Your task to perform on an android device: open app "Google Sheets" (install if not already installed) Image 0: 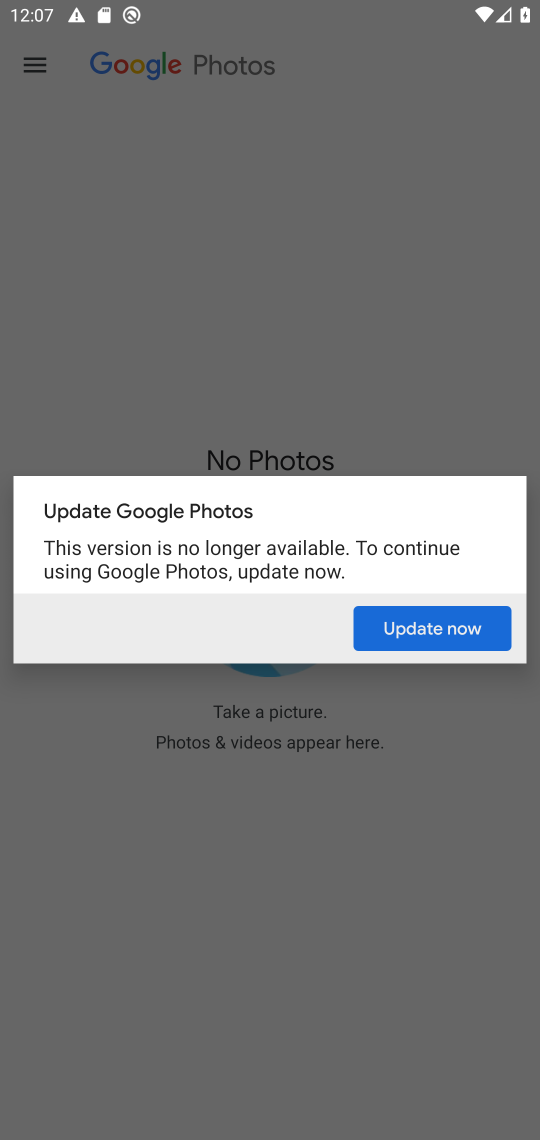
Step 0: press home button
Your task to perform on an android device: open app "Google Sheets" (install if not already installed) Image 1: 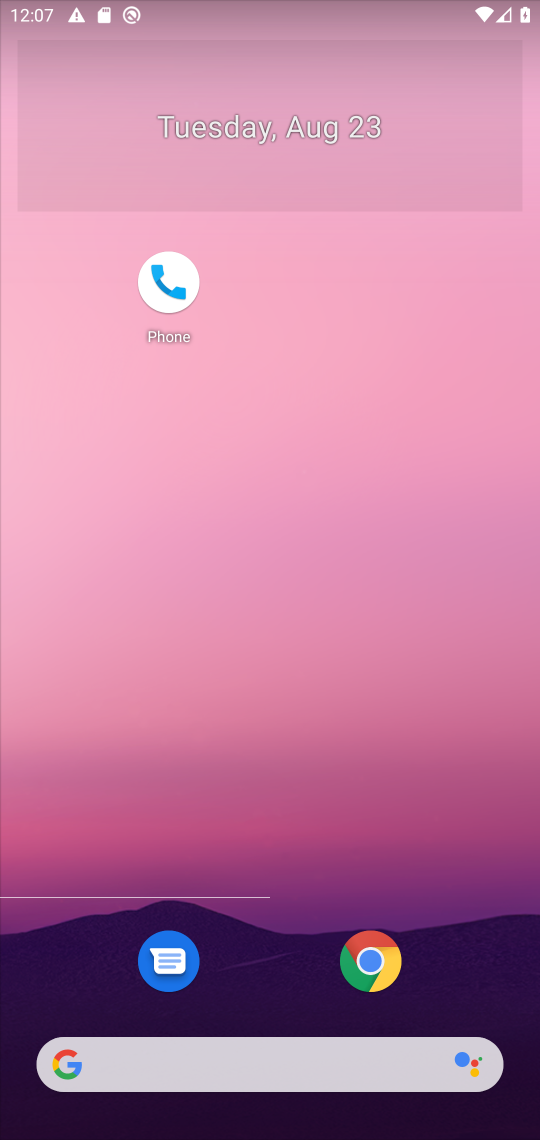
Step 1: drag from (282, 1026) to (270, 98)
Your task to perform on an android device: open app "Google Sheets" (install if not already installed) Image 2: 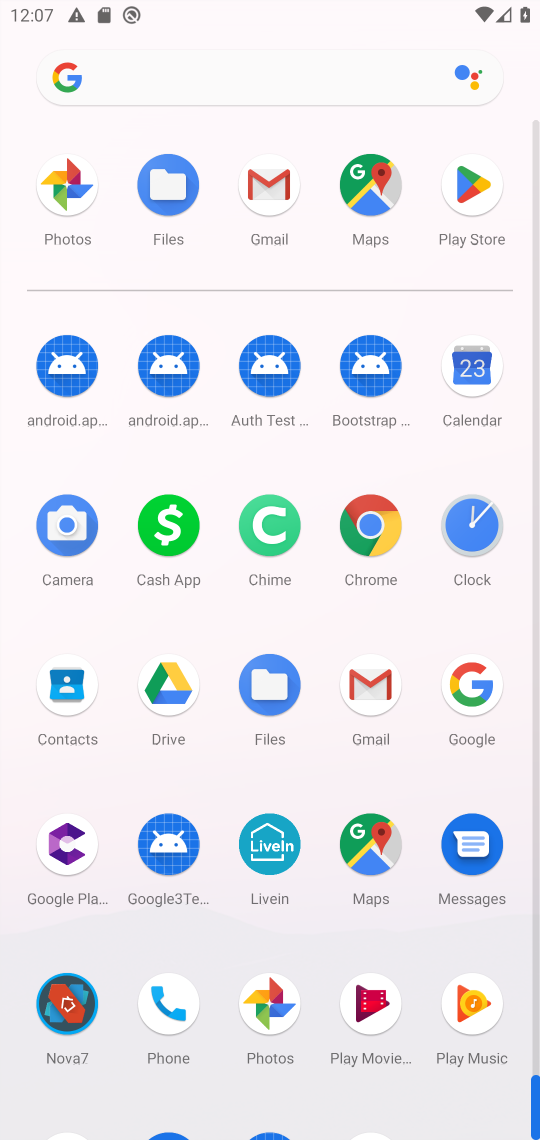
Step 2: click (445, 206)
Your task to perform on an android device: open app "Google Sheets" (install if not already installed) Image 3: 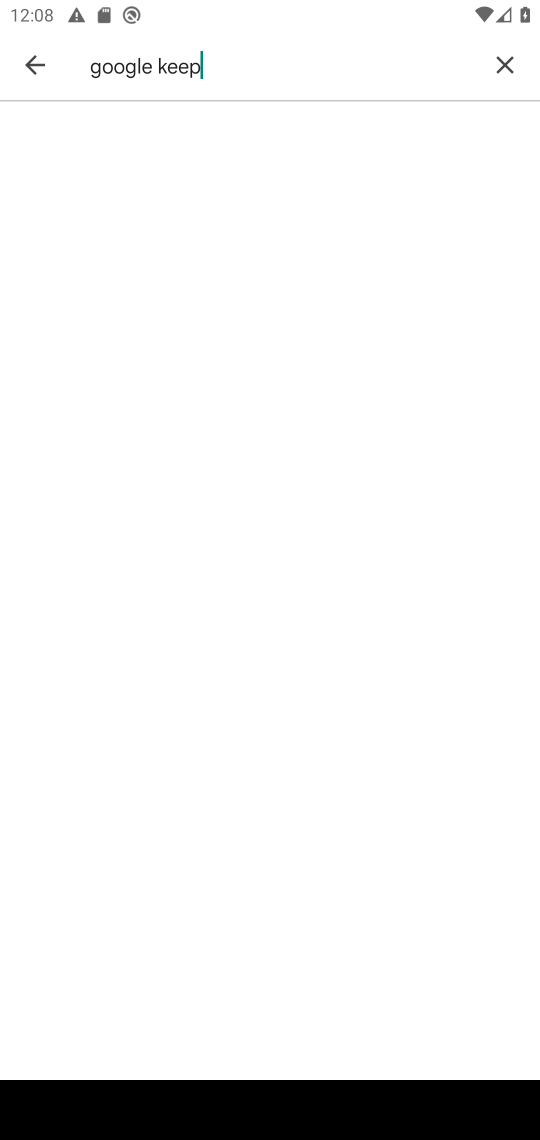
Step 3: click (501, 83)
Your task to perform on an android device: open app "Google Sheets" (install if not already installed) Image 4: 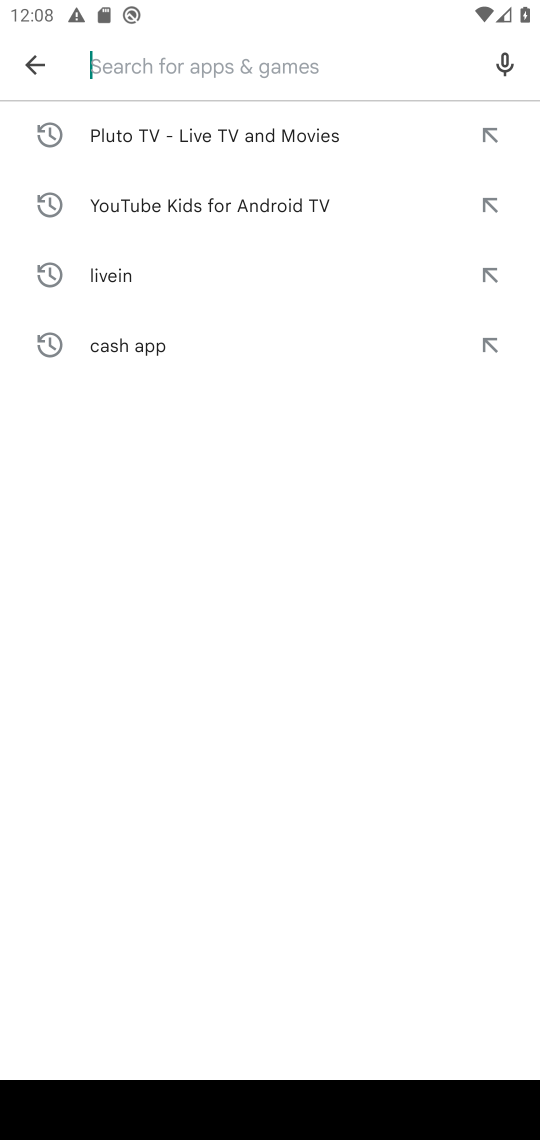
Step 4: type "google sheets"
Your task to perform on an android device: open app "Google Sheets" (install if not already installed) Image 5: 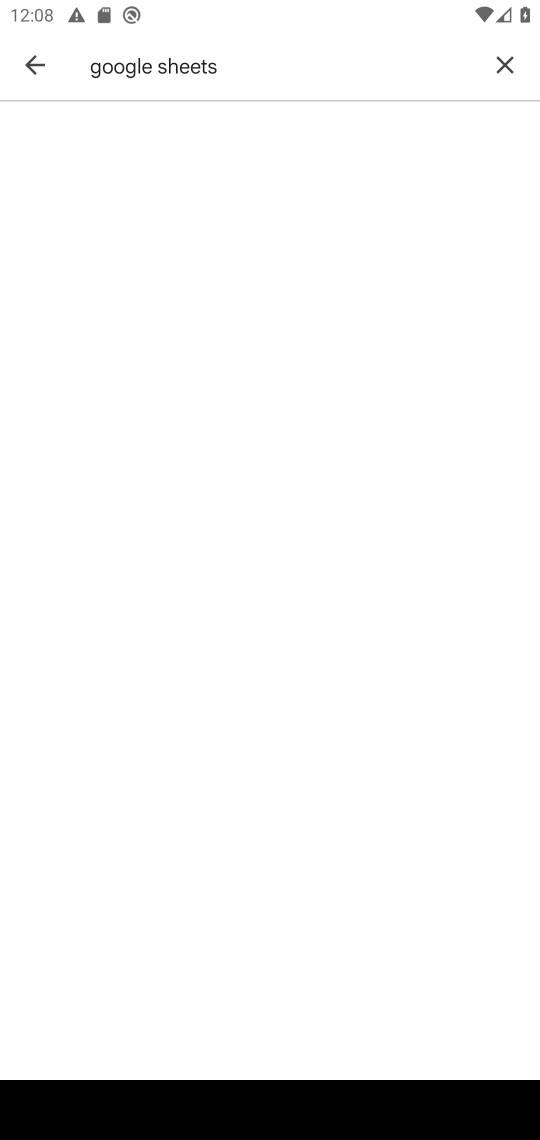
Step 5: task complete